Your task to perform on an android device: toggle show notifications on the lock screen Image 0: 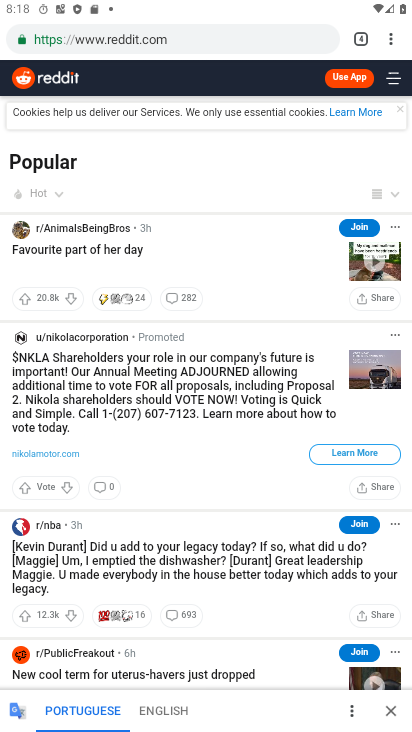
Step 0: press home button
Your task to perform on an android device: toggle show notifications on the lock screen Image 1: 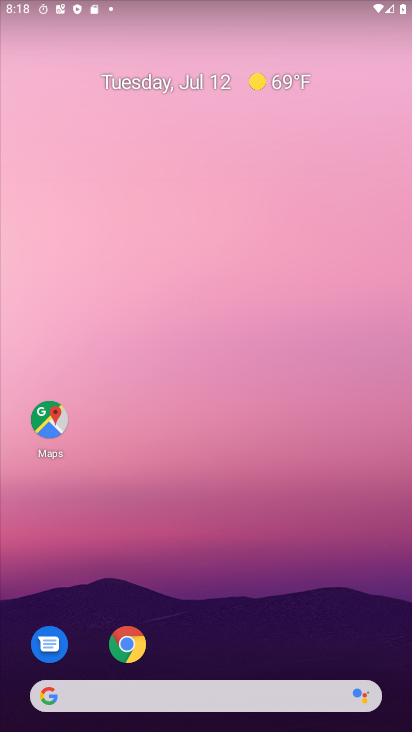
Step 1: drag from (221, 640) to (260, 97)
Your task to perform on an android device: toggle show notifications on the lock screen Image 2: 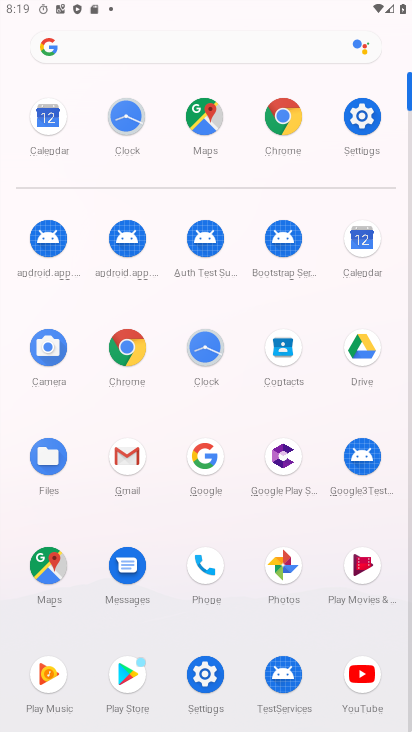
Step 2: click (366, 115)
Your task to perform on an android device: toggle show notifications on the lock screen Image 3: 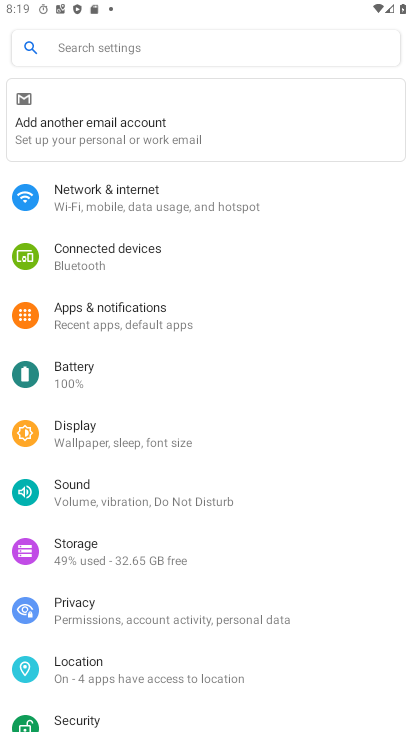
Step 3: click (121, 305)
Your task to perform on an android device: toggle show notifications on the lock screen Image 4: 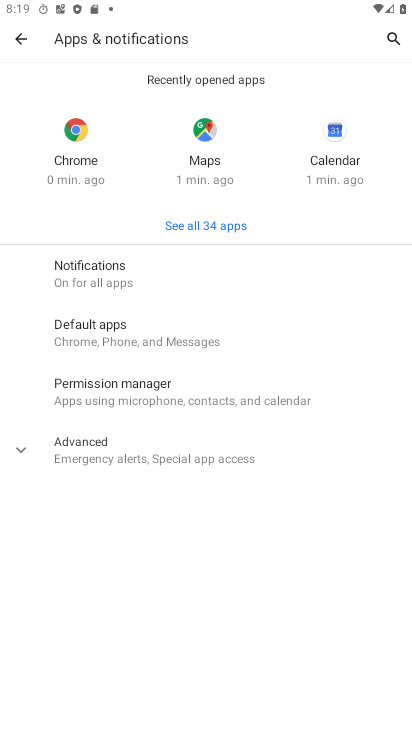
Step 4: click (140, 271)
Your task to perform on an android device: toggle show notifications on the lock screen Image 5: 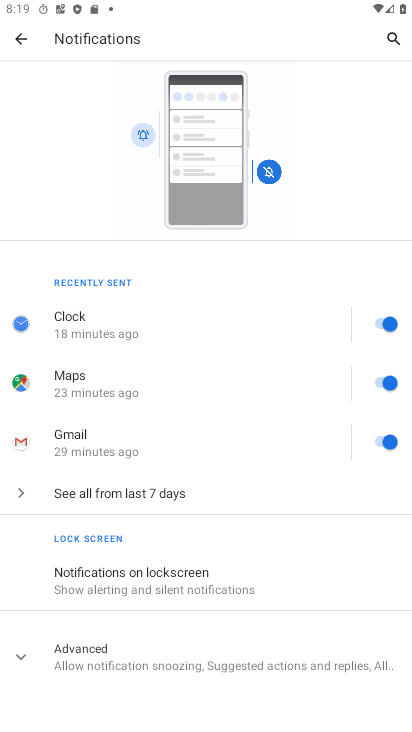
Step 5: click (147, 572)
Your task to perform on an android device: toggle show notifications on the lock screen Image 6: 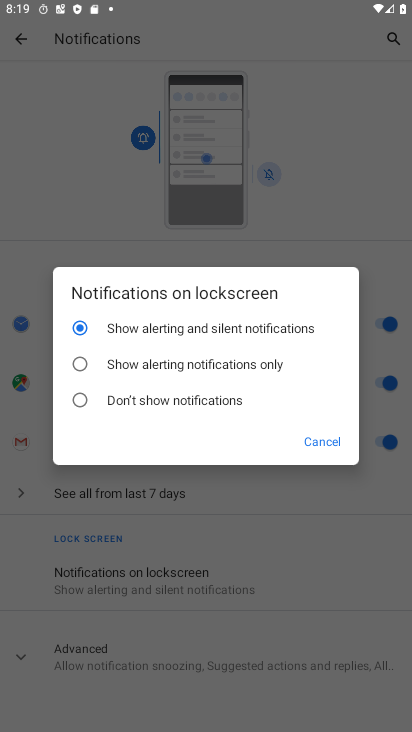
Step 6: click (80, 360)
Your task to perform on an android device: toggle show notifications on the lock screen Image 7: 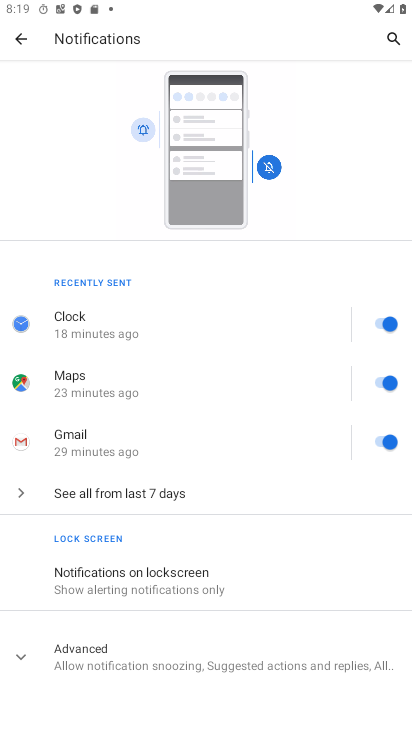
Step 7: task complete